Your task to perform on an android device: Open the calendar and show me this week's events? Image 0: 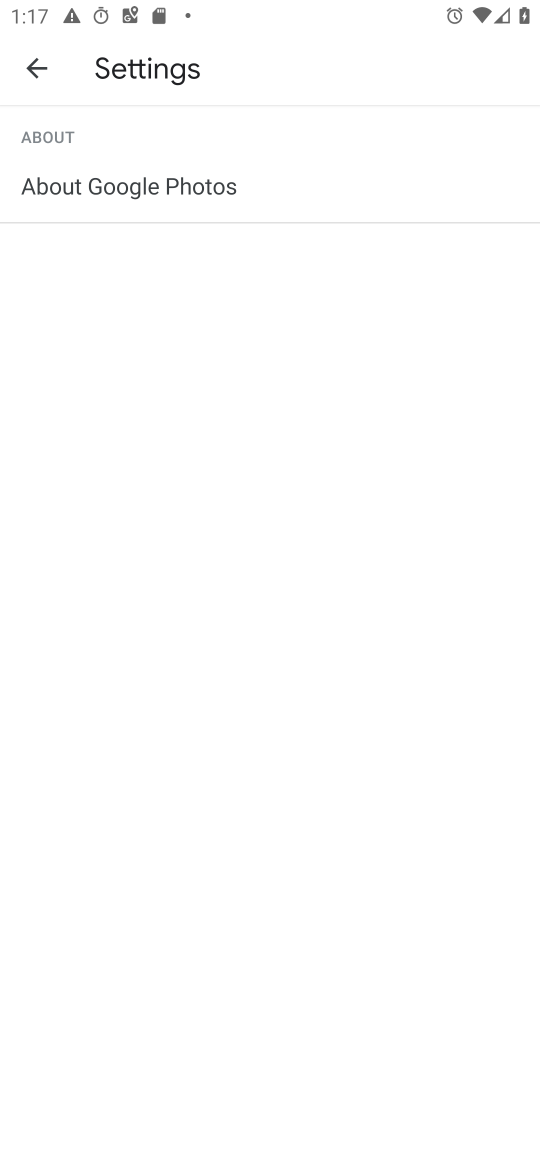
Step 0: press home button
Your task to perform on an android device: Open the calendar and show me this week's events? Image 1: 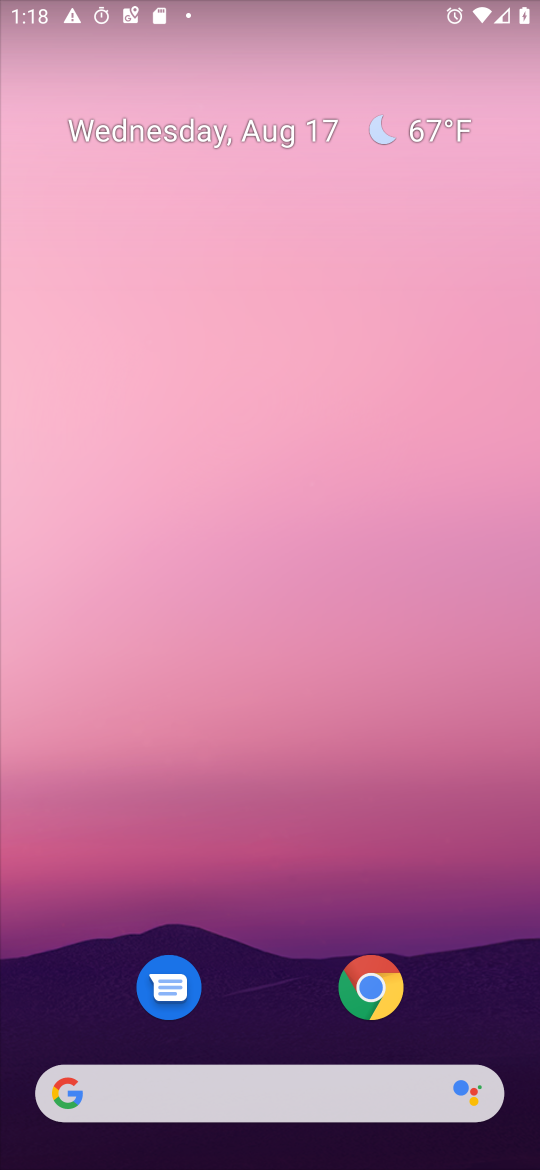
Step 1: drag from (306, 603) to (338, 450)
Your task to perform on an android device: Open the calendar and show me this week's events? Image 2: 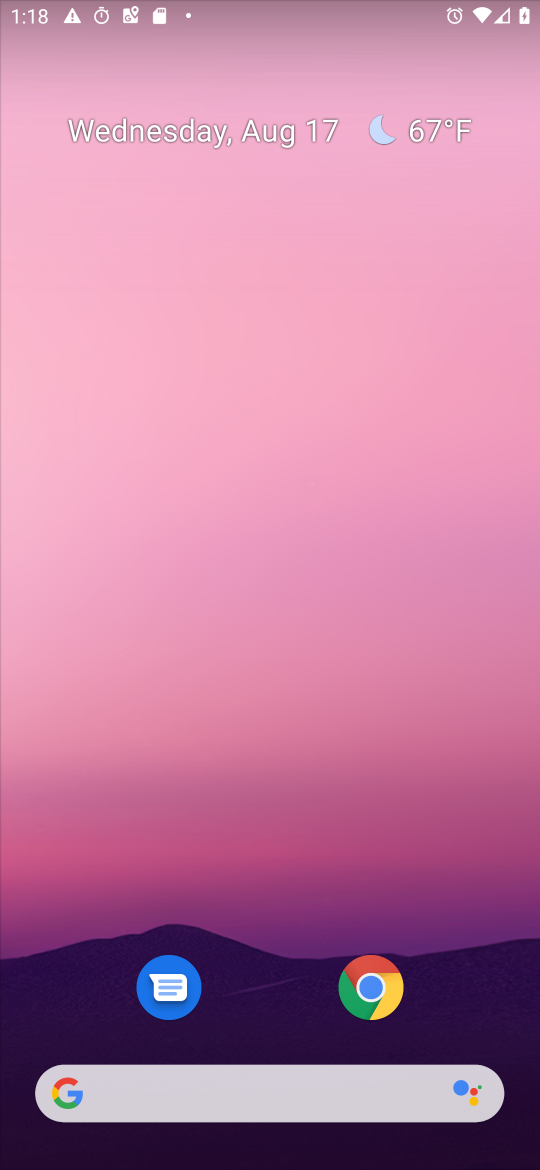
Step 2: drag from (20, 1122) to (278, 551)
Your task to perform on an android device: Open the calendar and show me this week's events? Image 3: 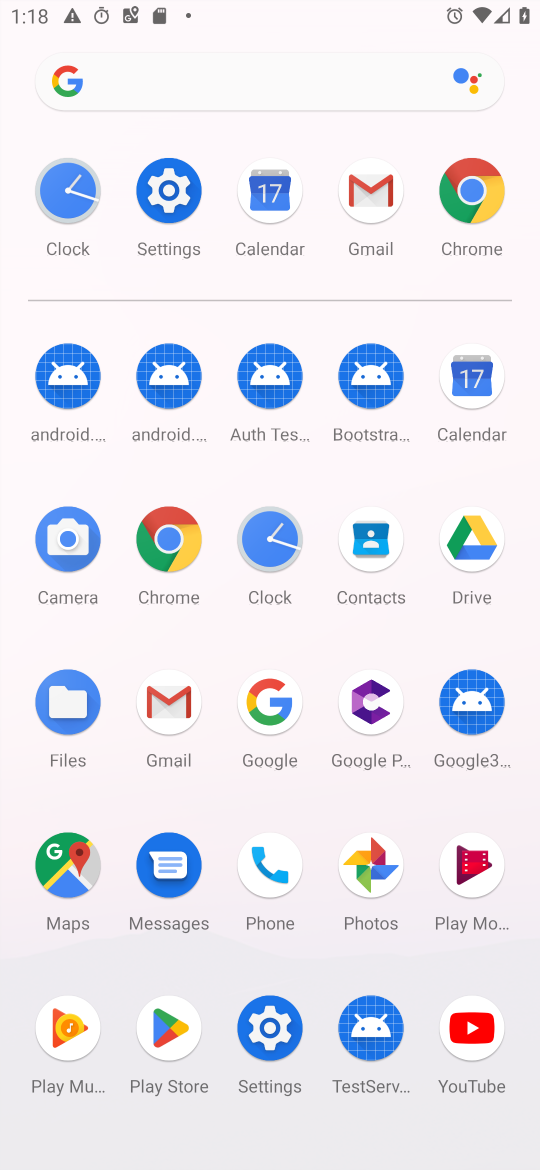
Step 3: click (471, 375)
Your task to perform on an android device: Open the calendar and show me this week's events? Image 4: 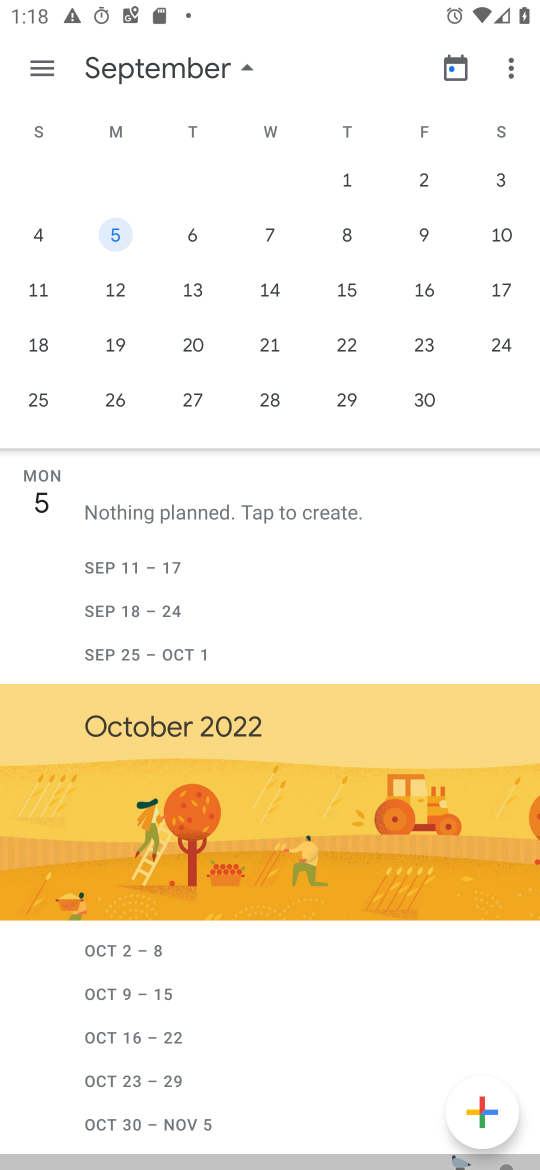
Step 4: drag from (2, 173) to (417, 188)
Your task to perform on an android device: Open the calendar and show me this week's events? Image 5: 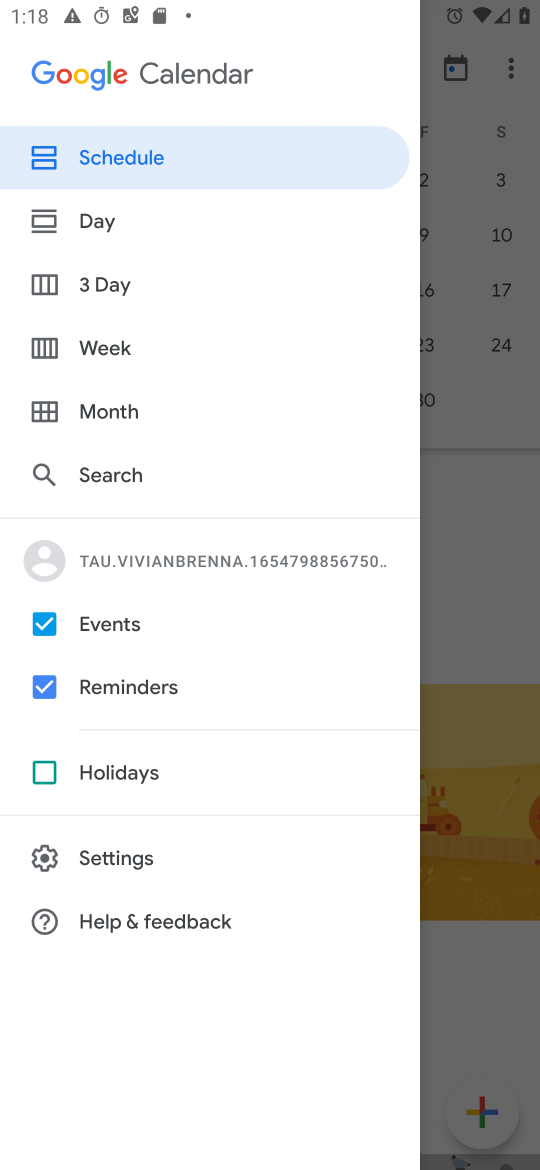
Step 5: click (449, 469)
Your task to perform on an android device: Open the calendar and show me this week's events? Image 6: 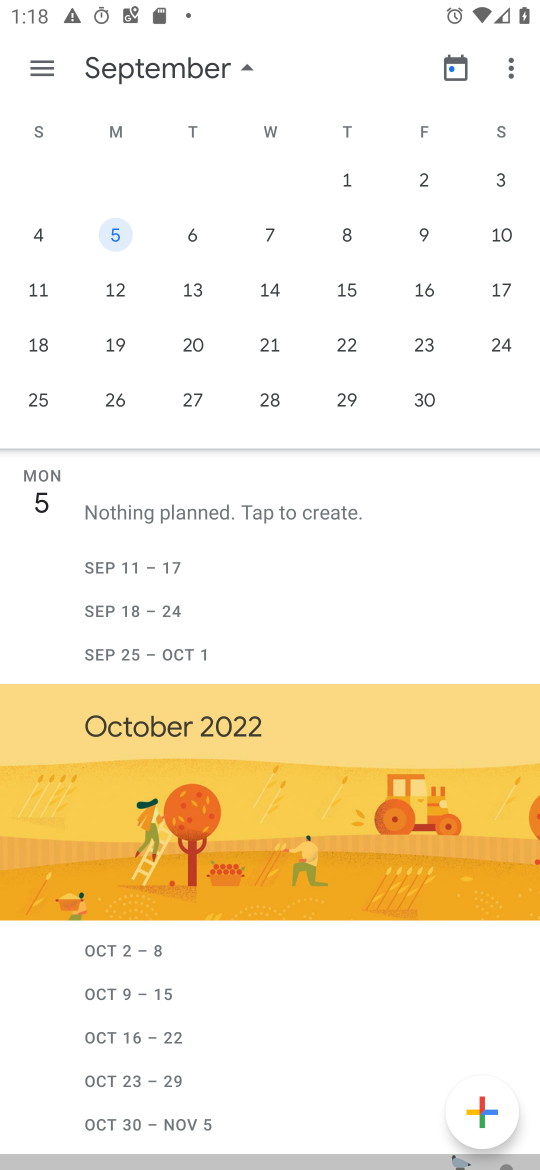
Step 6: drag from (18, 158) to (535, 336)
Your task to perform on an android device: Open the calendar and show me this week's events? Image 7: 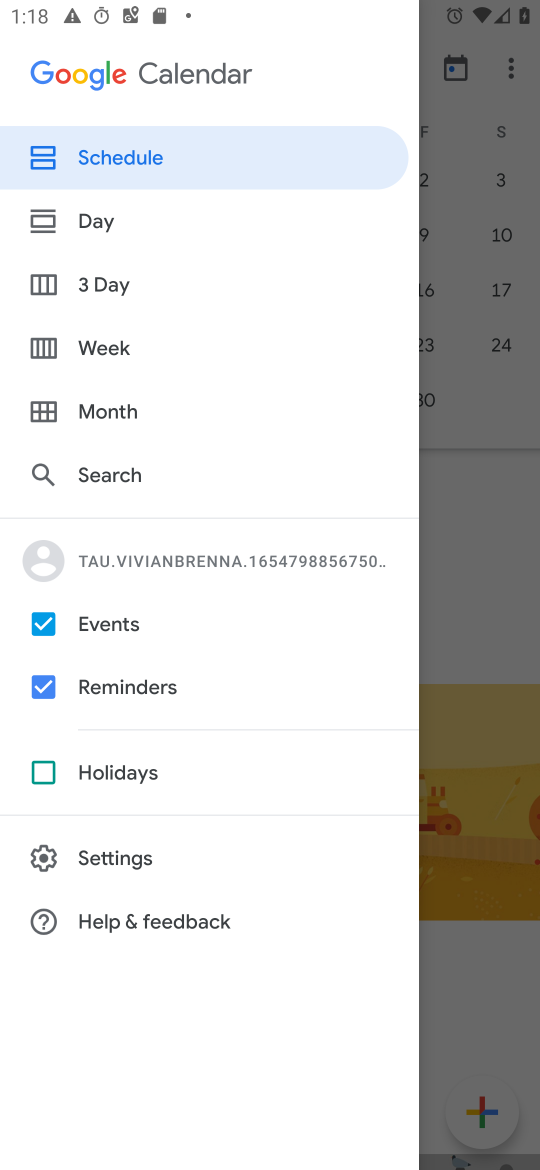
Step 7: click (453, 442)
Your task to perform on an android device: Open the calendar and show me this week's events? Image 8: 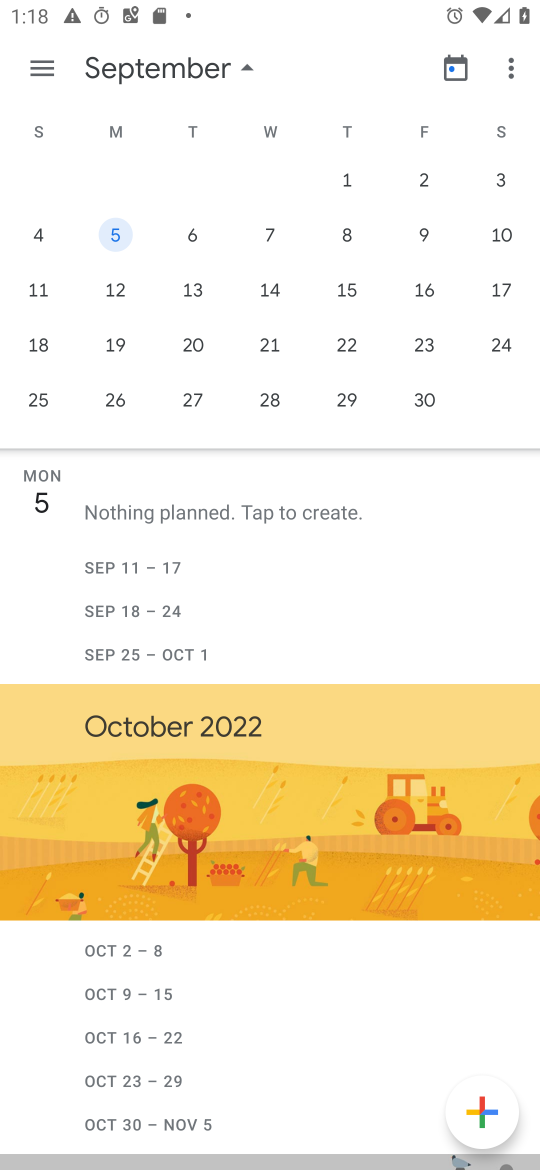
Step 8: drag from (12, 200) to (399, 201)
Your task to perform on an android device: Open the calendar and show me this week's events? Image 9: 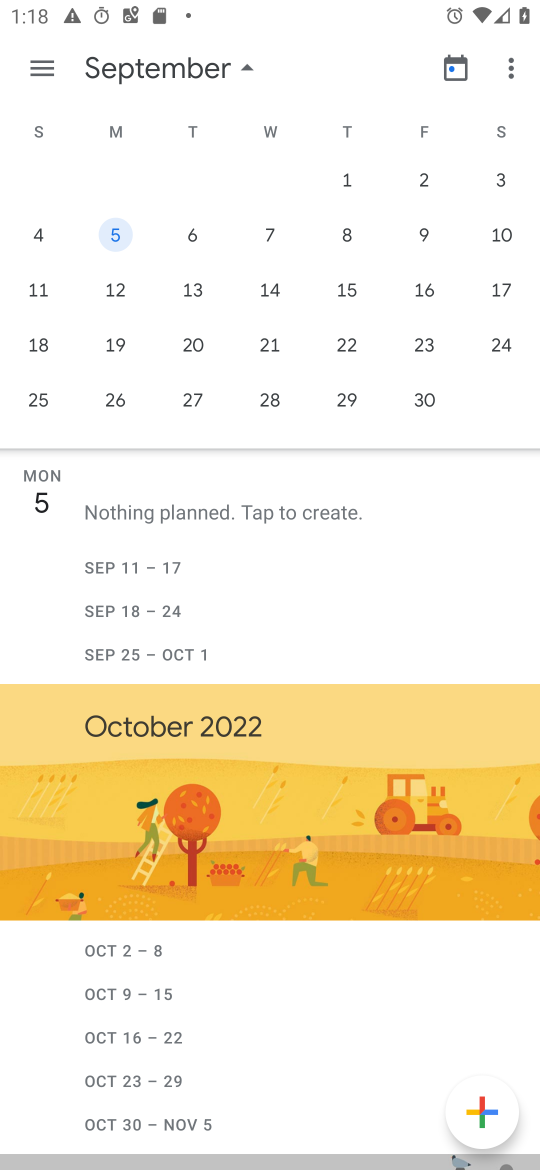
Step 9: click (194, 73)
Your task to perform on an android device: Open the calendar and show me this week's events? Image 10: 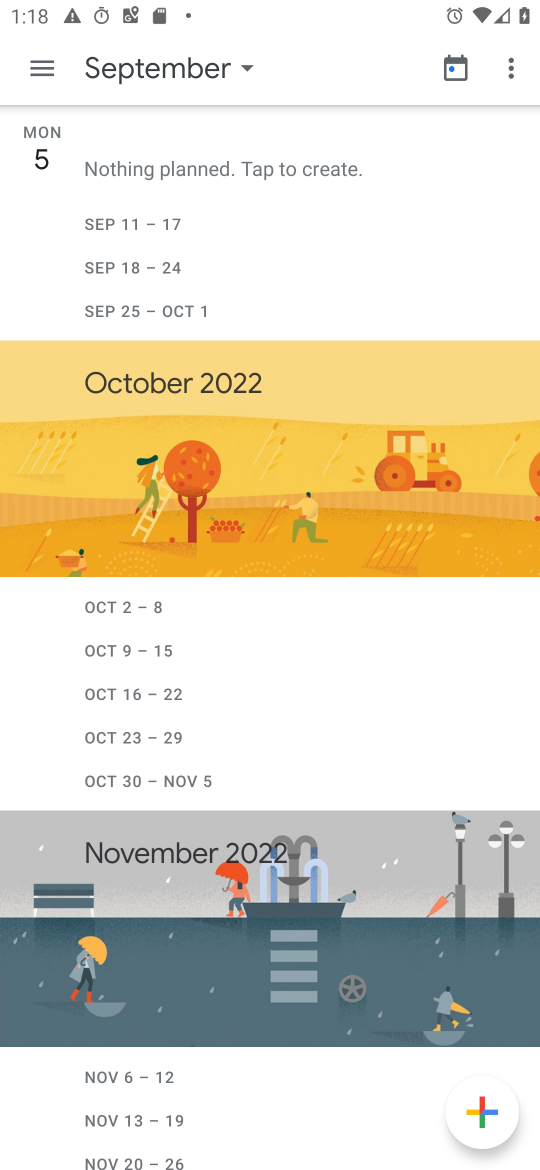
Step 10: click (194, 73)
Your task to perform on an android device: Open the calendar and show me this week's events? Image 11: 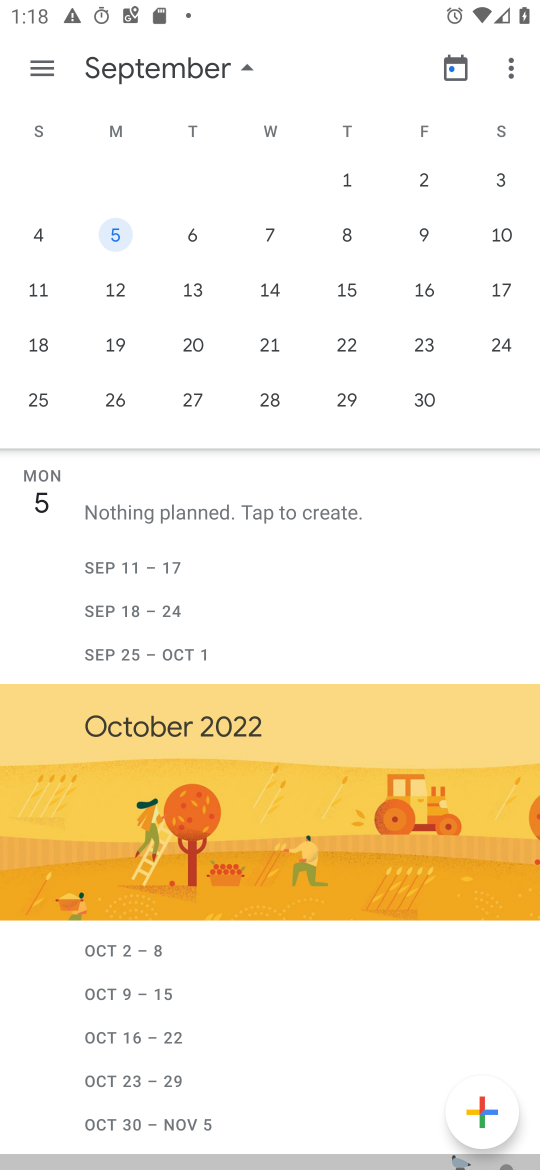
Step 11: click (39, 173)
Your task to perform on an android device: Open the calendar and show me this week's events? Image 12: 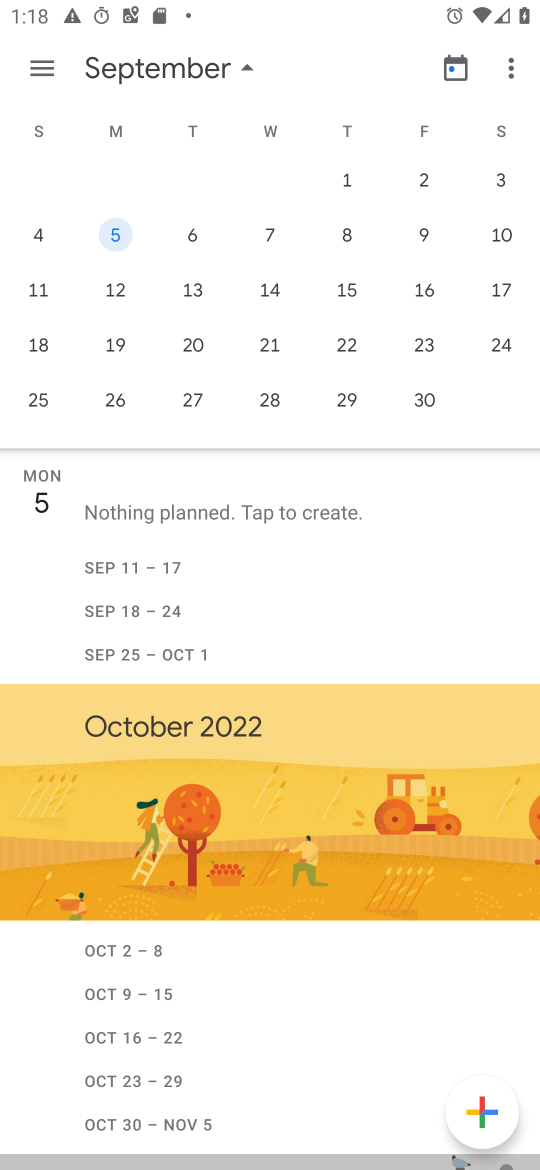
Step 12: task complete